Your task to perform on an android device: turn on wifi Image 0: 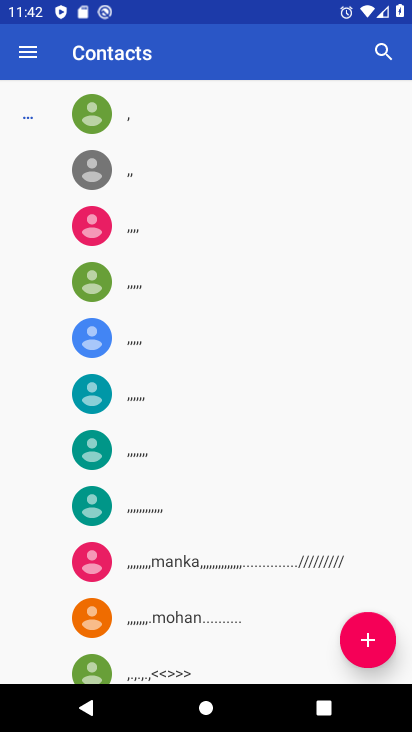
Step 0: press home button
Your task to perform on an android device: turn on wifi Image 1: 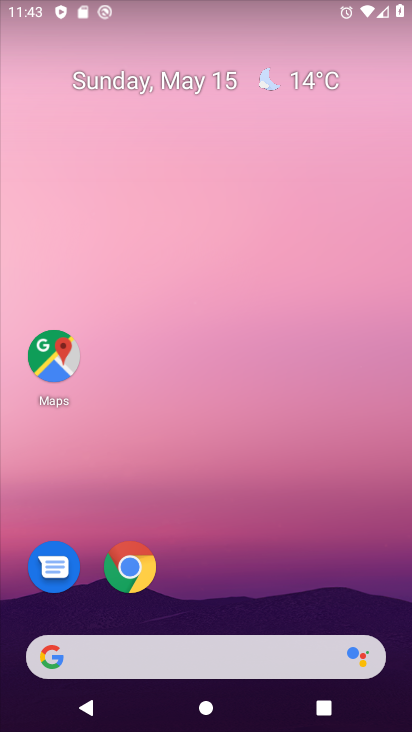
Step 1: drag from (241, 592) to (275, 49)
Your task to perform on an android device: turn on wifi Image 2: 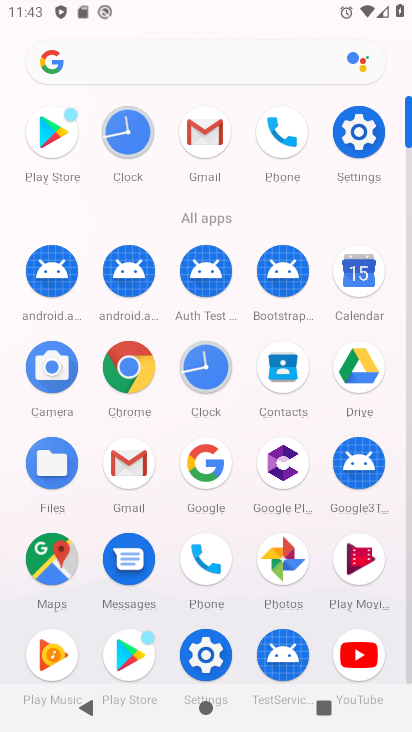
Step 2: click (358, 144)
Your task to perform on an android device: turn on wifi Image 3: 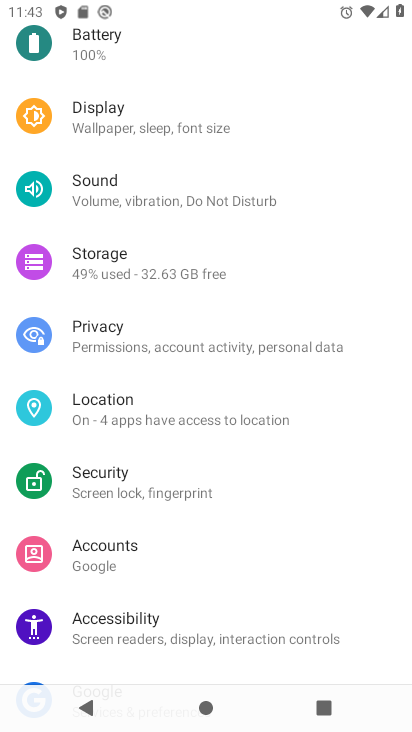
Step 3: drag from (109, 179) to (162, 439)
Your task to perform on an android device: turn on wifi Image 4: 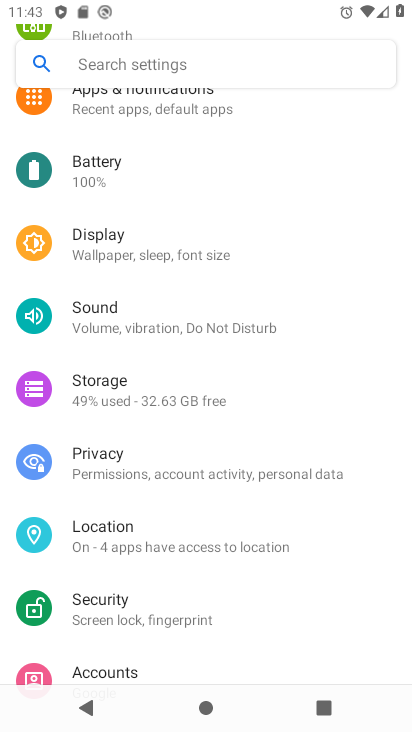
Step 4: drag from (206, 254) to (231, 588)
Your task to perform on an android device: turn on wifi Image 5: 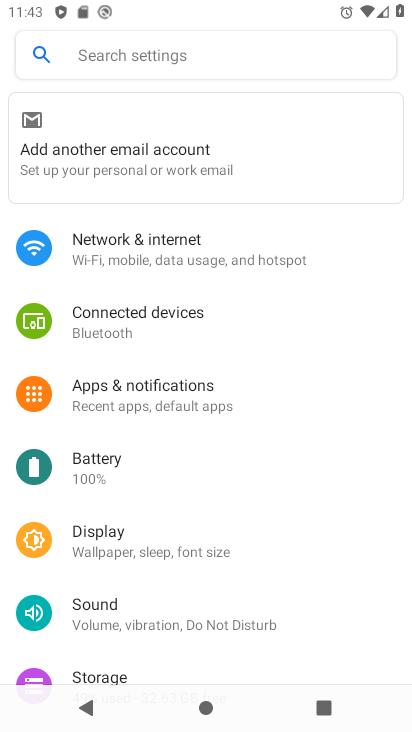
Step 5: click (248, 257)
Your task to perform on an android device: turn on wifi Image 6: 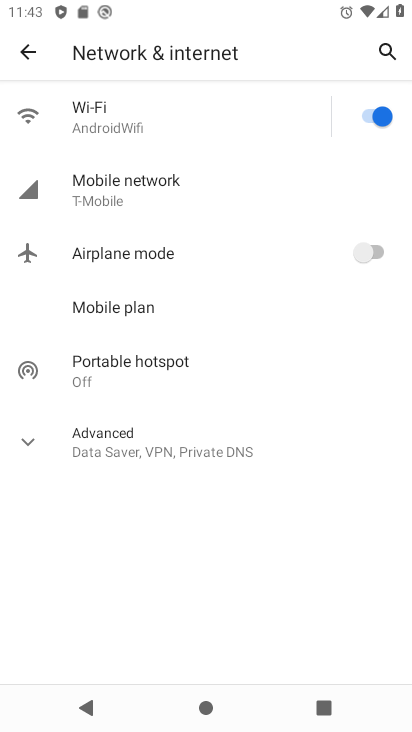
Step 6: task complete